Your task to perform on an android device: turn on sleep mode Image 0: 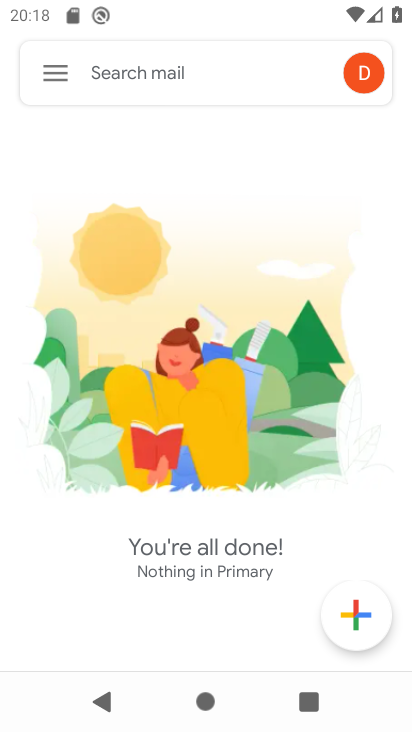
Step 0: press home button
Your task to perform on an android device: turn on sleep mode Image 1: 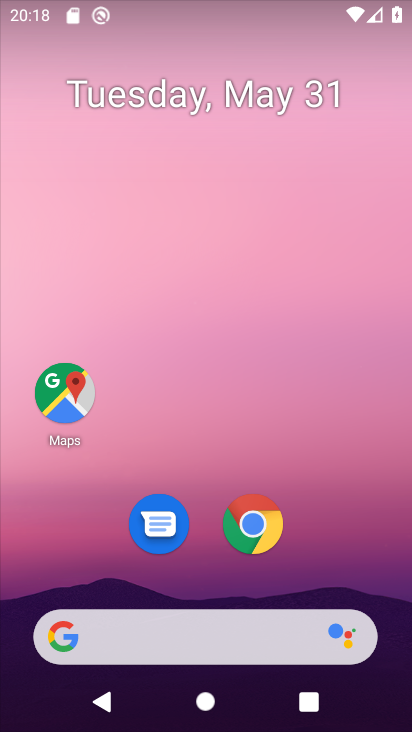
Step 1: drag from (330, 516) to (295, 1)
Your task to perform on an android device: turn on sleep mode Image 2: 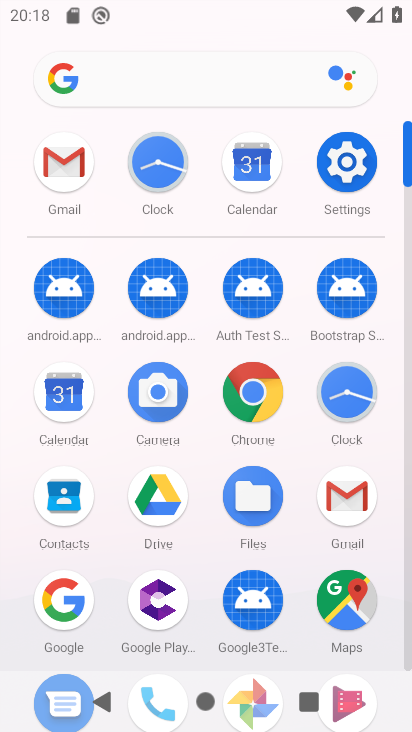
Step 2: click (339, 144)
Your task to perform on an android device: turn on sleep mode Image 3: 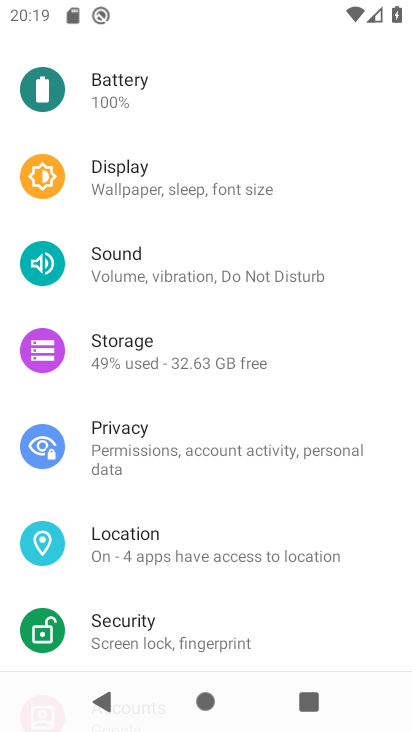
Step 3: click (197, 185)
Your task to perform on an android device: turn on sleep mode Image 4: 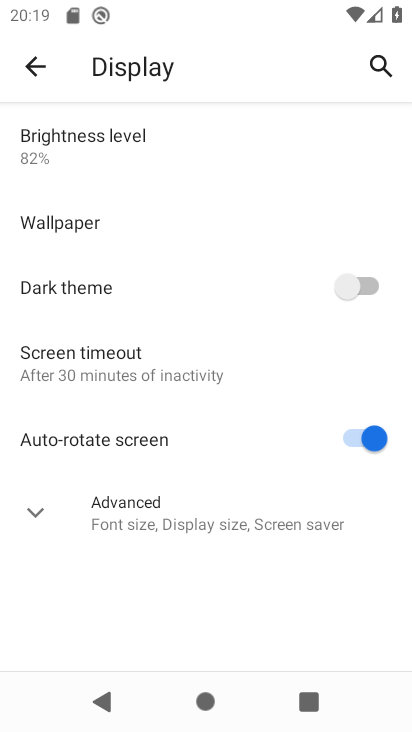
Step 4: click (36, 503)
Your task to perform on an android device: turn on sleep mode Image 5: 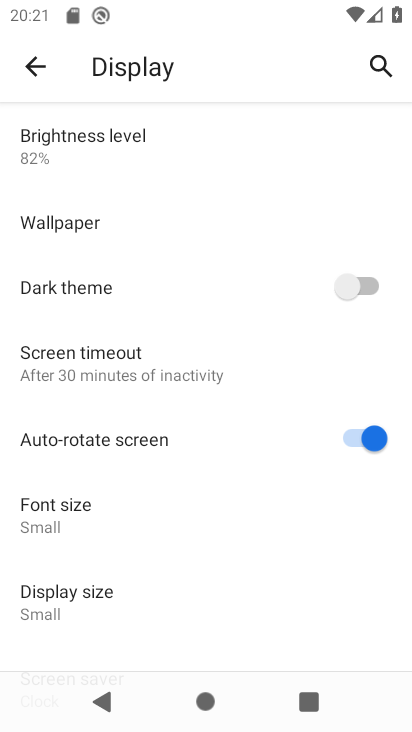
Step 5: task complete